Your task to perform on an android device: Open network settings Image 0: 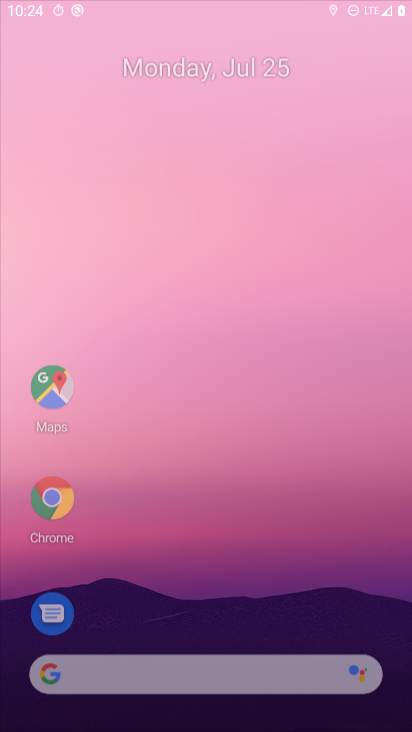
Step 0: click (135, 698)
Your task to perform on an android device: Open network settings Image 1: 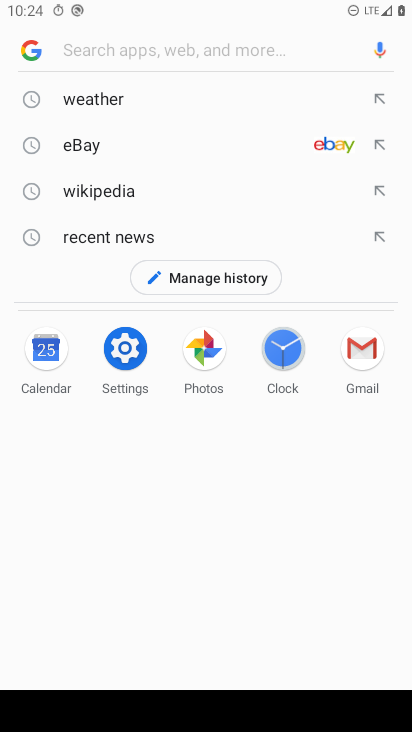
Step 1: press home button
Your task to perform on an android device: Open network settings Image 2: 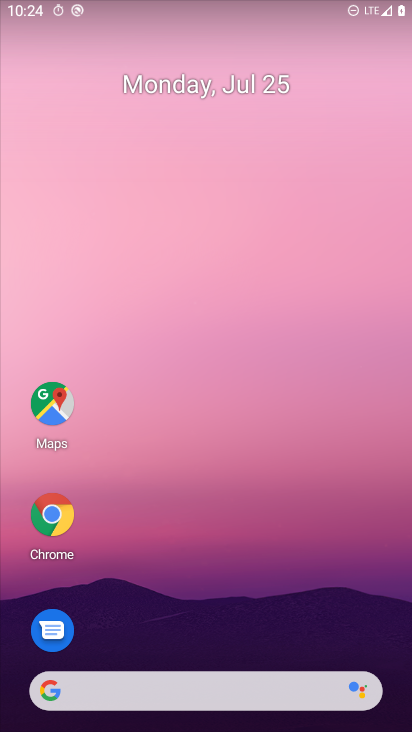
Step 2: drag from (74, 502) to (183, 145)
Your task to perform on an android device: Open network settings Image 3: 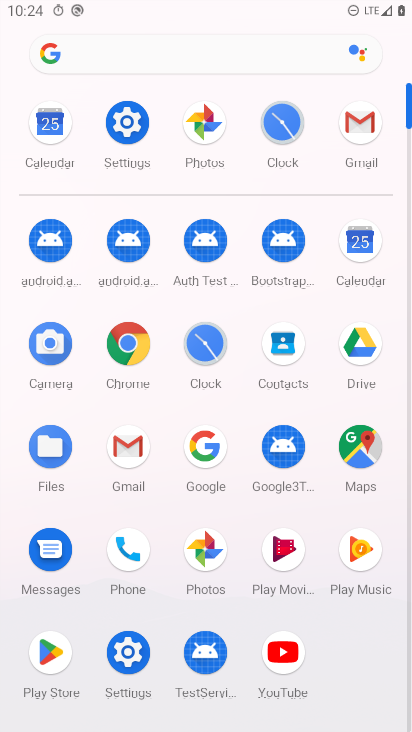
Step 3: click (131, 647)
Your task to perform on an android device: Open network settings Image 4: 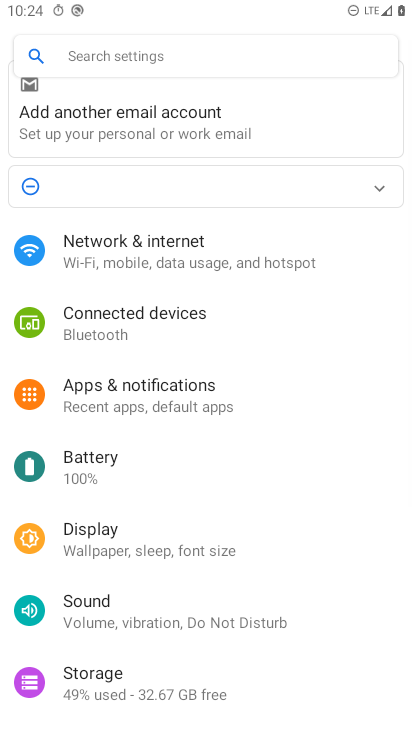
Step 4: click (163, 156)
Your task to perform on an android device: Open network settings Image 5: 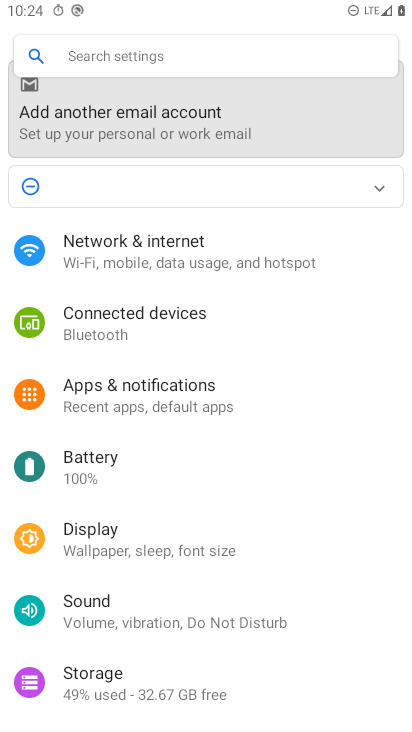
Step 5: click (143, 251)
Your task to perform on an android device: Open network settings Image 6: 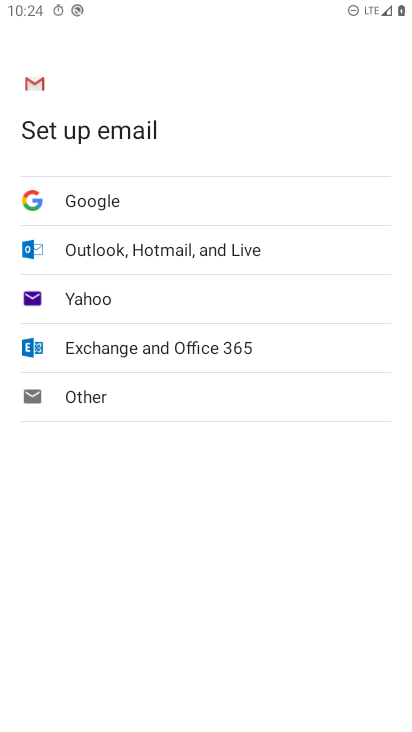
Step 6: press home button
Your task to perform on an android device: Open network settings Image 7: 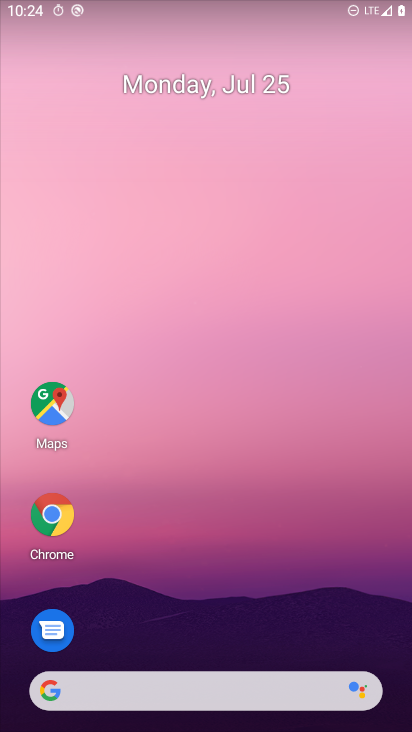
Step 7: drag from (41, 702) to (334, 9)
Your task to perform on an android device: Open network settings Image 8: 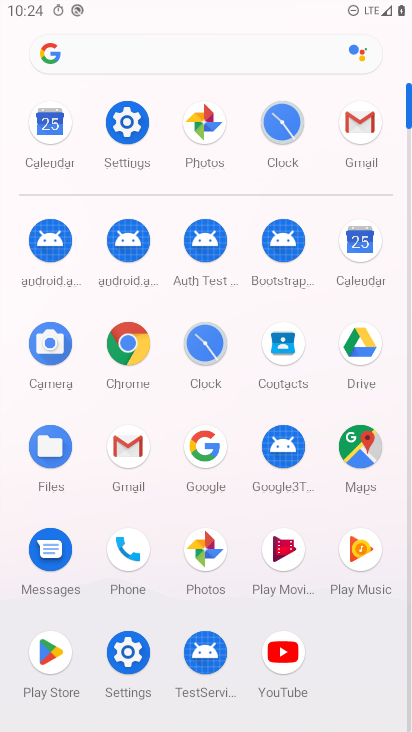
Step 8: click (107, 642)
Your task to perform on an android device: Open network settings Image 9: 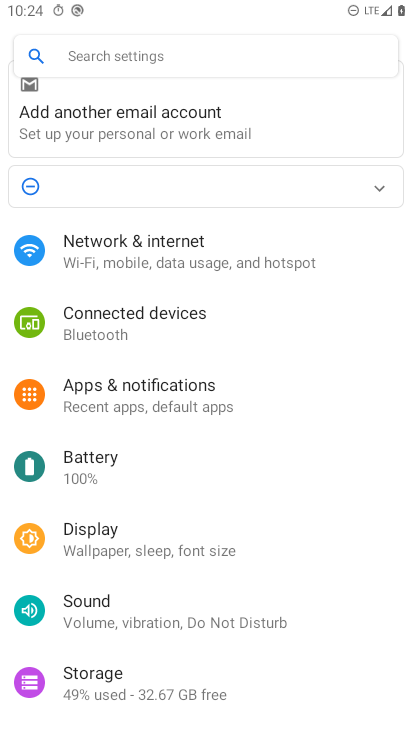
Step 9: click (121, 248)
Your task to perform on an android device: Open network settings Image 10: 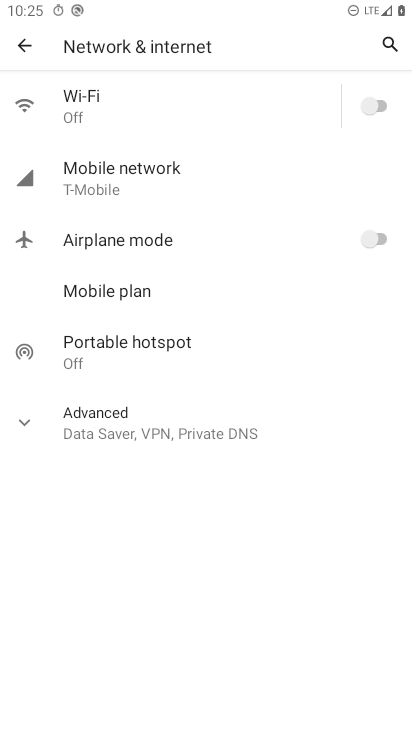
Step 10: task complete